Your task to perform on an android device: open app "Yahoo Mail" (install if not already installed) Image 0: 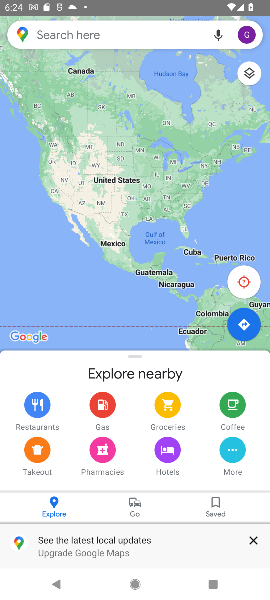
Step 0: press home button
Your task to perform on an android device: open app "Yahoo Mail" (install if not already installed) Image 1: 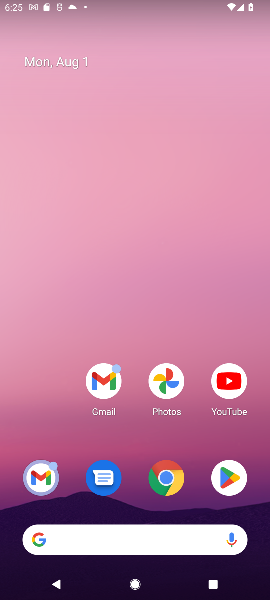
Step 1: click (238, 472)
Your task to perform on an android device: open app "Yahoo Mail" (install if not already installed) Image 2: 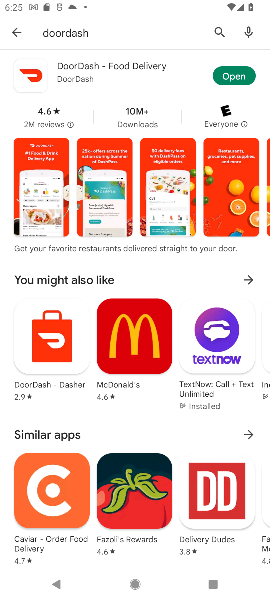
Step 2: click (223, 37)
Your task to perform on an android device: open app "Yahoo Mail" (install if not already installed) Image 3: 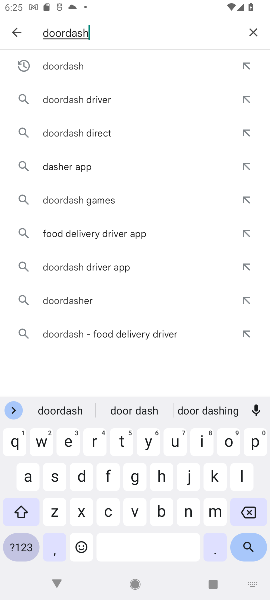
Step 3: click (252, 31)
Your task to perform on an android device: open app "Yahoo Mail" (install if not already installed) Image 4: 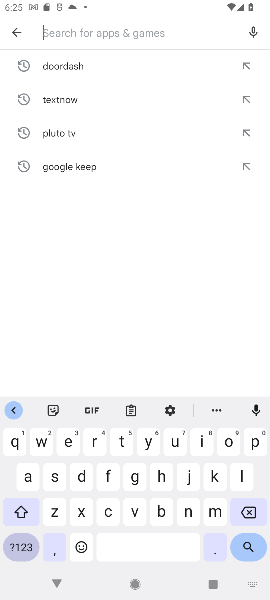
Step 4: click (148, 437)
Your task to perform on an android device: open app "Yahoo Mail" (install if not already installed) Image 5: 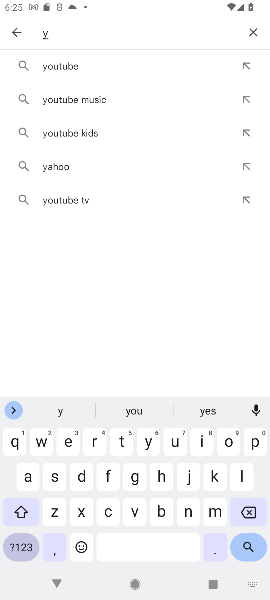
Step 5: click (24, 476)
Your task to perform on an android device: open app "Yahoo Mail" (install if not already installed) Image 6: 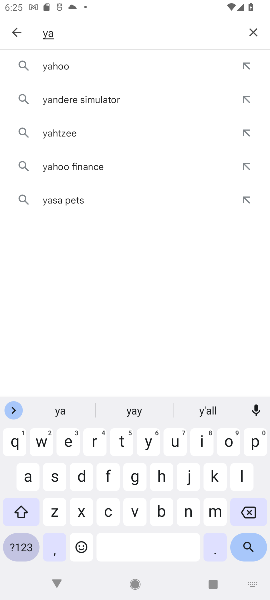
Step 6: click (82, 67)
Your task to perform on an android device: open app "Yahoo Mail" (install if not already installed) Image 7: 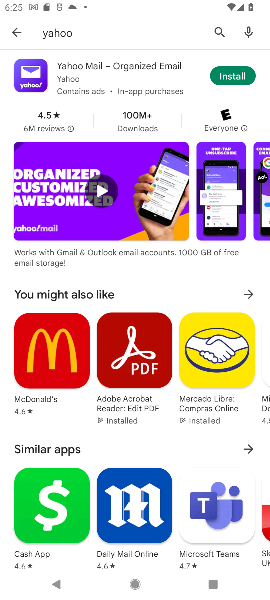
Step 7: click (234, 83)
Your task to perform on an android device: open app "Yahoo Mail" (install if not already installed) Image 8: 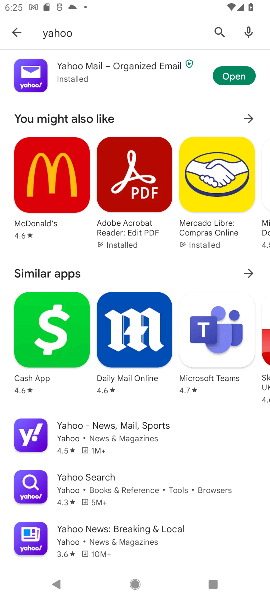
Step 8: click (225, 78)
Your task to perform on an android device: open app "Yahoo Mail" (install if not already installed) Image 9: 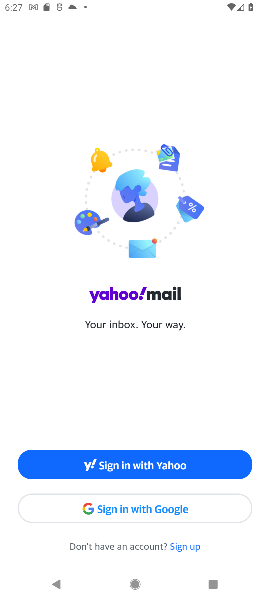
Step 9: task complete